Your task to perform on an android device: turn smart compose on in the gmail app Image 0: 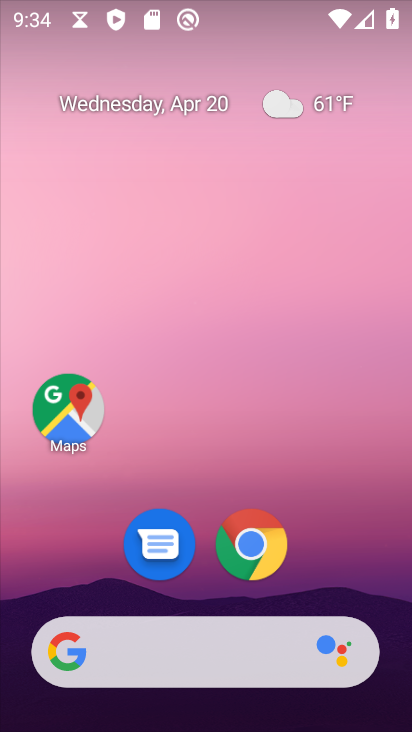
Step 0: drag from (166, 645) to (289, 123)
Your task to perform on an android device: turn smart compose on in the gmail app Image 1: 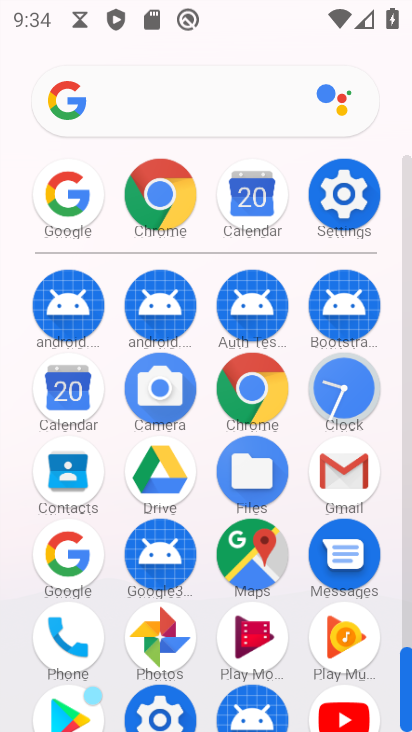
Step 1: click (343, 481)
Your task to perform on an android device: turn smart compose on in the gmail app Image 2: 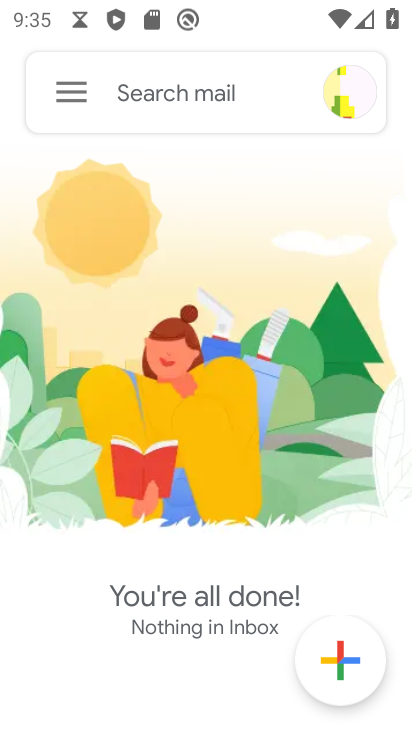
Step 2: click (76, 92)
Your task to perform on an android device: turn smart compose on in the gmail app Image 3: 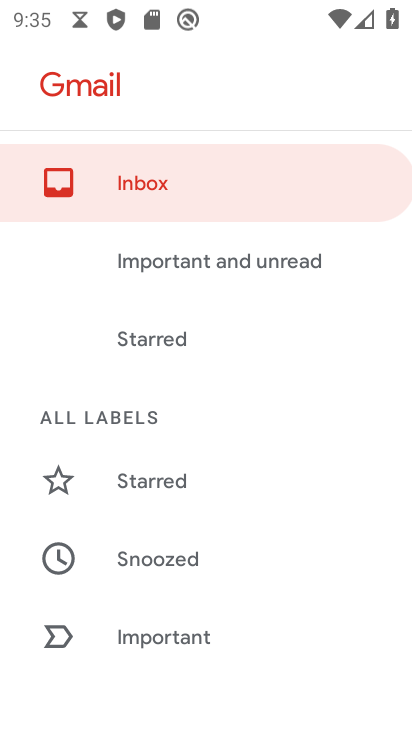
Step 3: drag from (223, 659) to (278, 213)
Your task to perform on an android device: turn smart compose on in the gmail app Image 4: 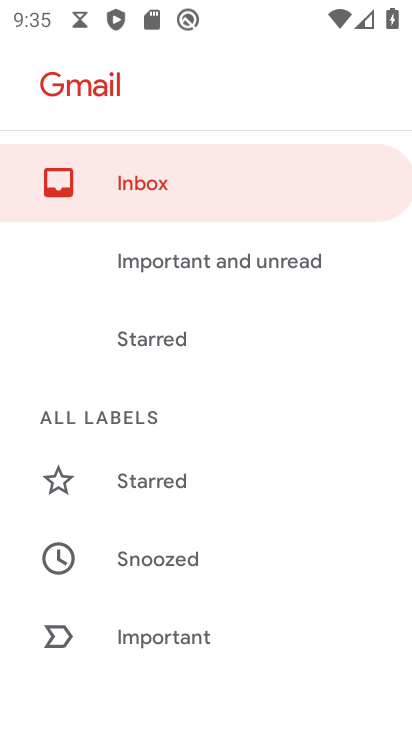
Step 4: drag from (265, 611) to (347, 78)
Your task to perform on an android device: turn smart compose on in the gmail app Image 5: 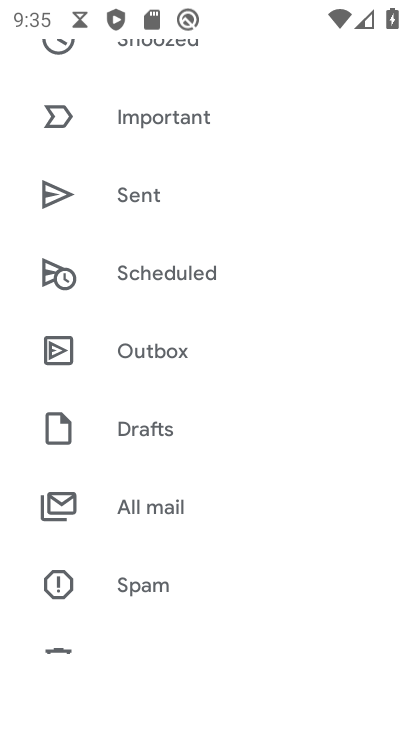
Step 5: drag from (231, 618) to (369, 14)
Your task to perform on an android device: turn smart compose on in the gmail app Image 6: 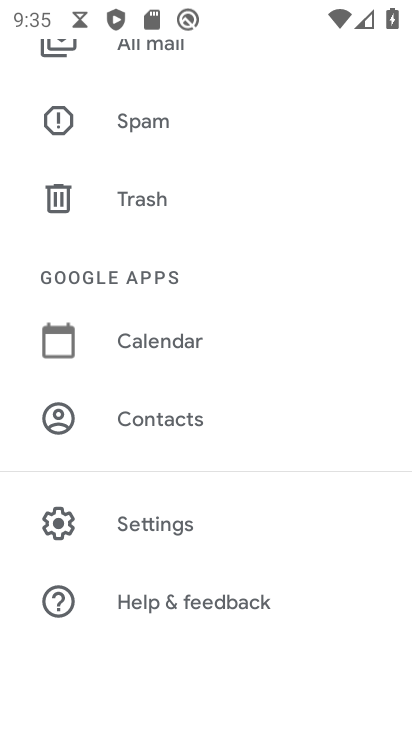
Step 6: click (173, 522)
Your task to perform on an android device: turn smart compose on in the gmail app Image 7: 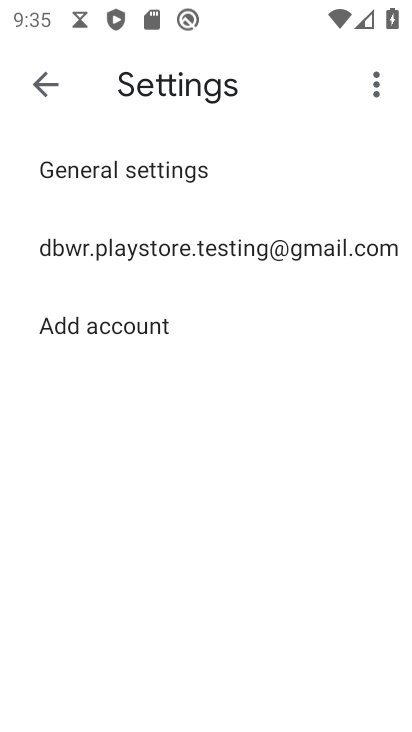
Step 7: click (229, 241)
Your task to perform on an android device: turn smart compose on in the gmail app Image 8: 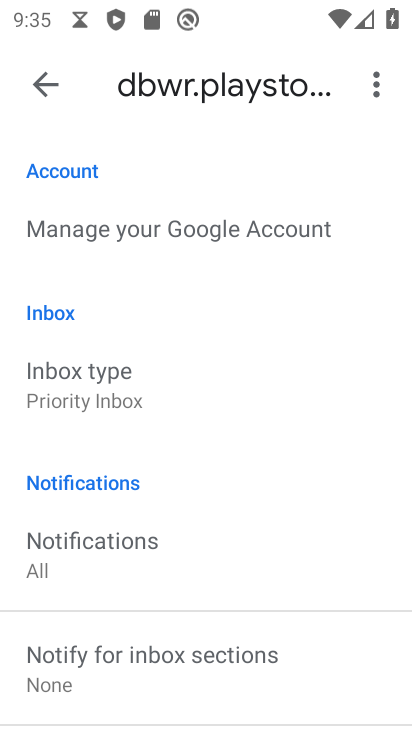
Step 8: task complete